Your task to perform on an android device: Open maps Image 0: 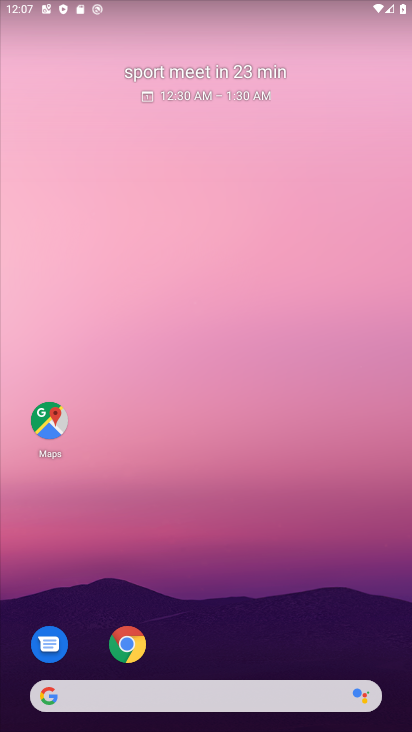
Step 0: click (27, 417)
Your task to perform on an android device: Open maps Image 1: 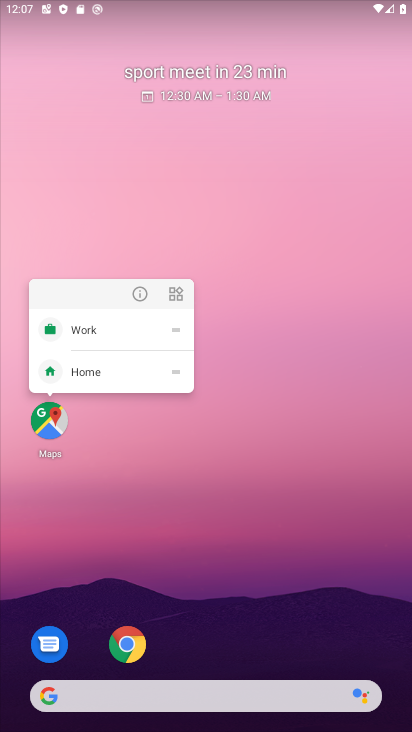
Step 1: click (34, 416)
Your task to perform on an android device: Open maps Image 2: 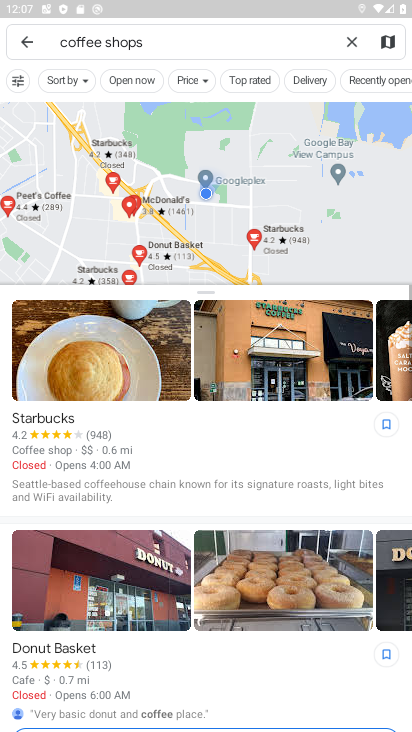
Step 2: task complete